Your task to perform on an android device: Turn on the flashlight Image 0: 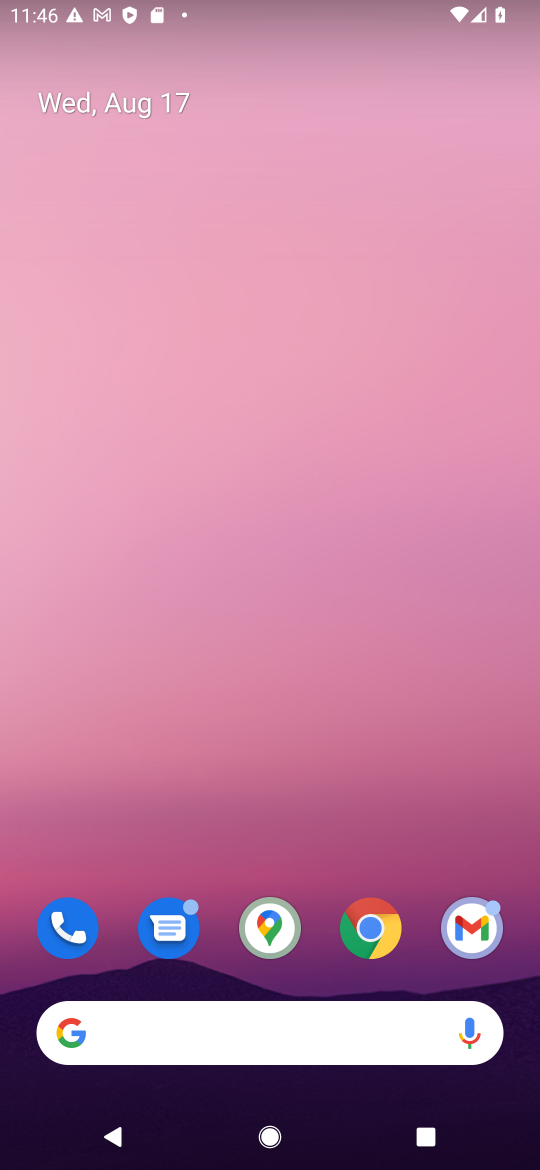
Step 0: drag from (304, 804) to (309, 250)
Your task to perform on an android device: Turn on the flashlight Image 1: 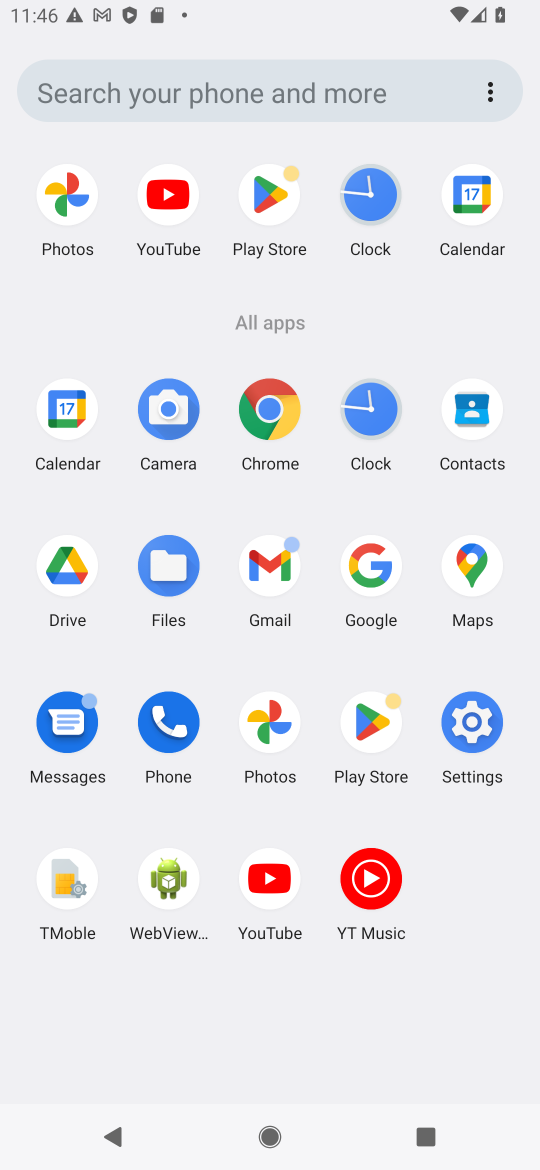
Step 1: click (462, 750)
Your task to perform on an android device: Turn on the flashlight Image 2: 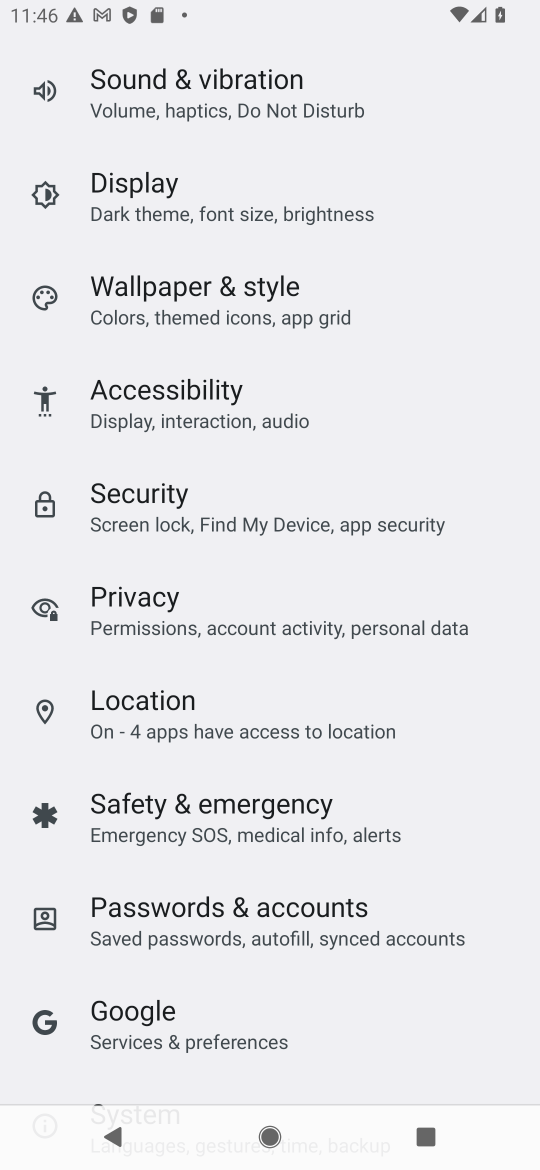
Step 2: task complete